Your task to perform on an android device: Open Google Chrome and open the bookmarks view Image 0: 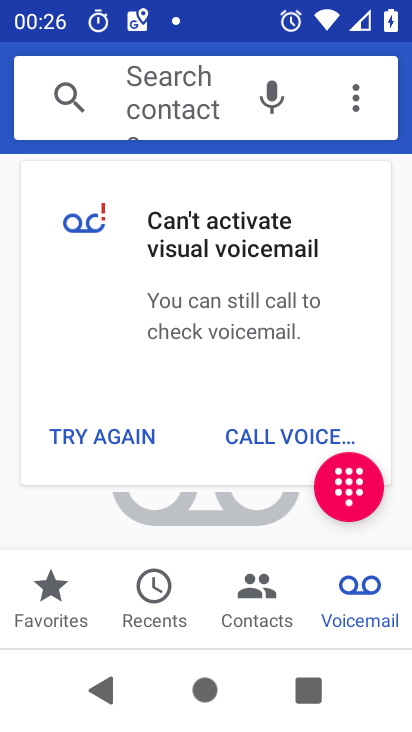
Step 0: press home button
Your task to perform on an android device: Open Google Chrome and open the bookmarks view Image 1: 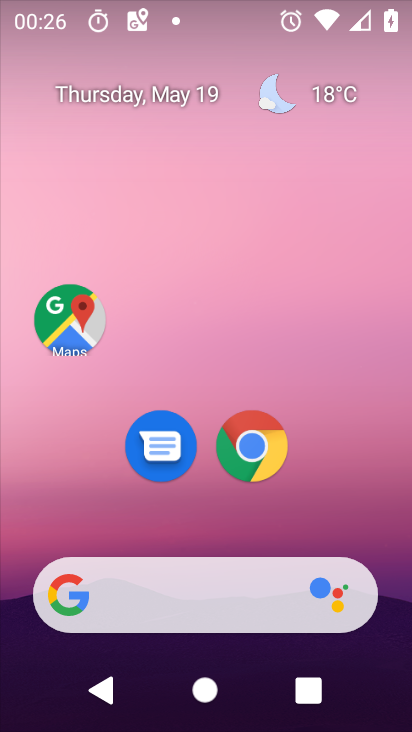
Step 1: click (271, 462)
Your task to perform on an android device: Open Google Chrome and open the bookmarks view Image 2: 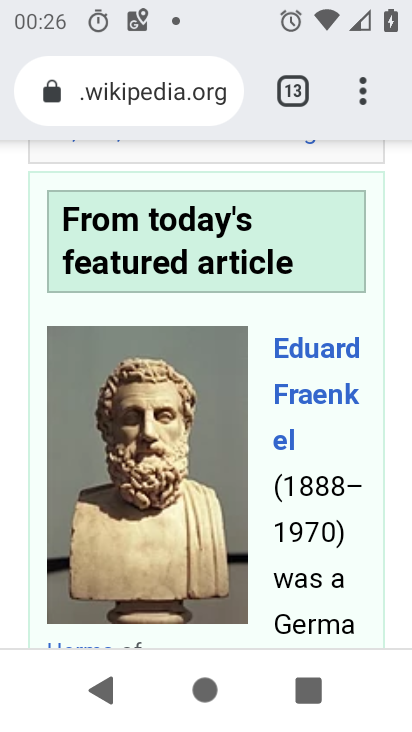
Step 2: task complete